Your task to perform on an android device: Open ESPN.com Image 0: 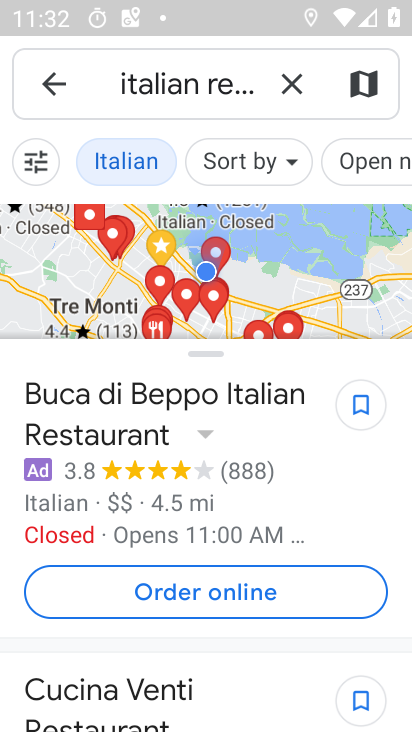
Step 0: press home button
Your task to perform on an android device: Open ESPN.com Image 1: 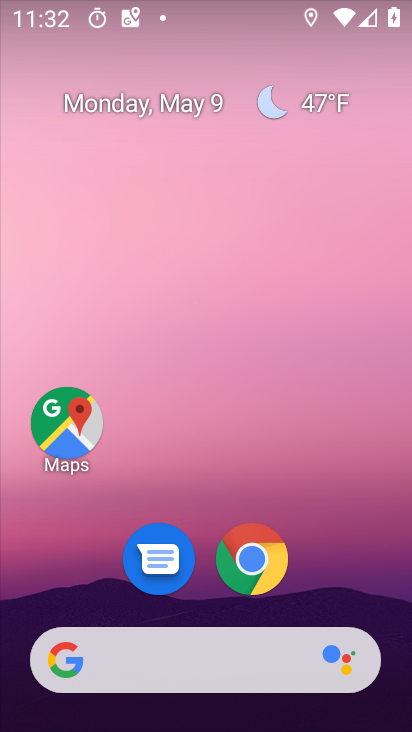
Step 1: click (263, 561)
Your task to perform on an android device: Open ESPN.com Image 2: 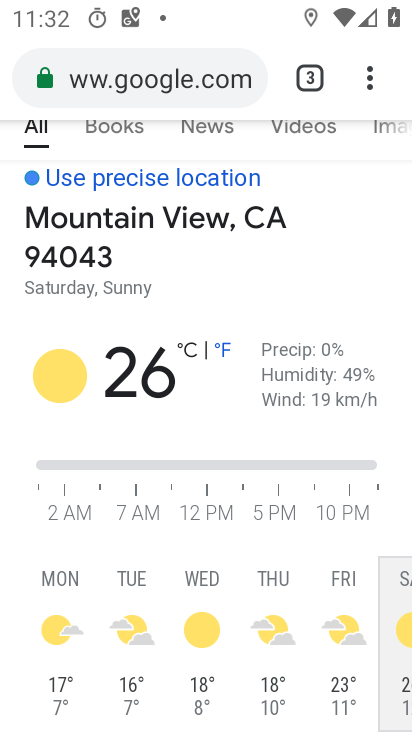
Step 2: drag from (371, 71) to (212, 139)
Your task to perform on an android device: Open ESPN.com Image 3: 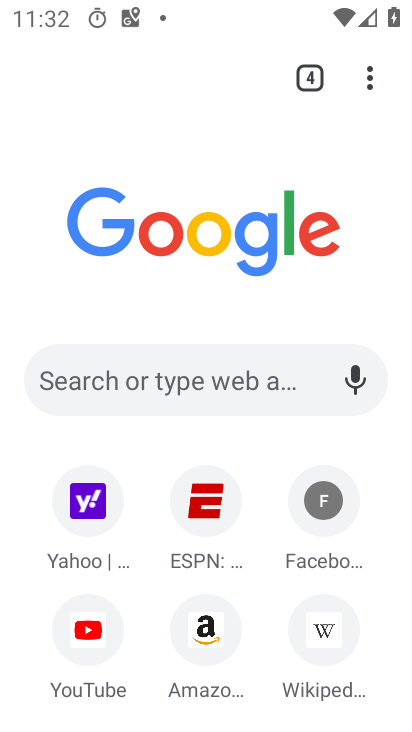
Step 3: click (190, 519)
Your task to perform on an android device: Open ESPN.com Image 4: 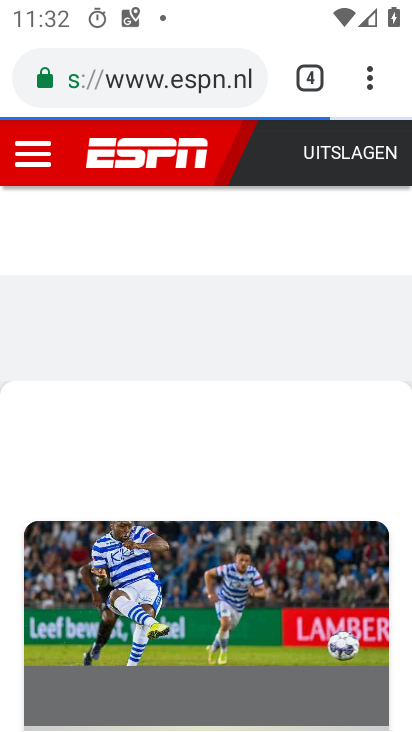
Step 4: task complete